Your task to perform on an android device: Go to network settings Image 0: 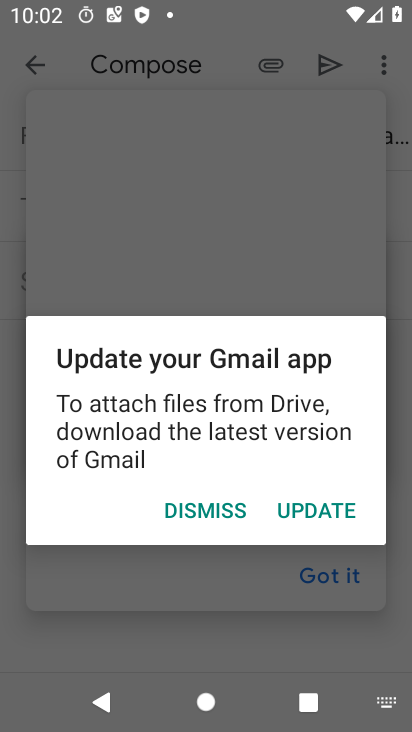
Step 0: press home button
Your task to perform on an android device: Go to network settings Image 1: 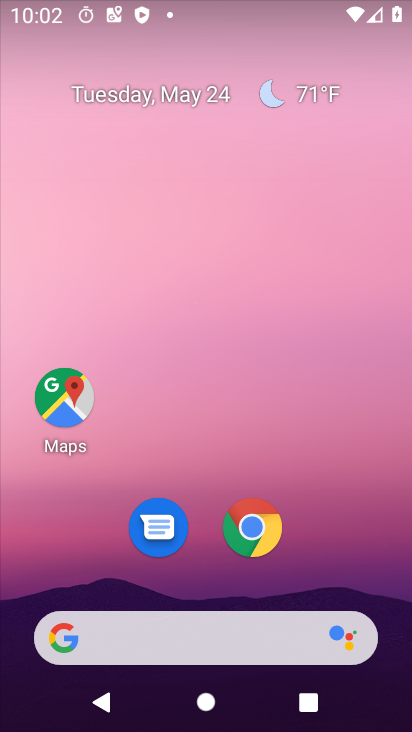
Step 1: drag from (194, 562) to (262, 76)
Your task to perform on an android device: Go to network settings Image 2: 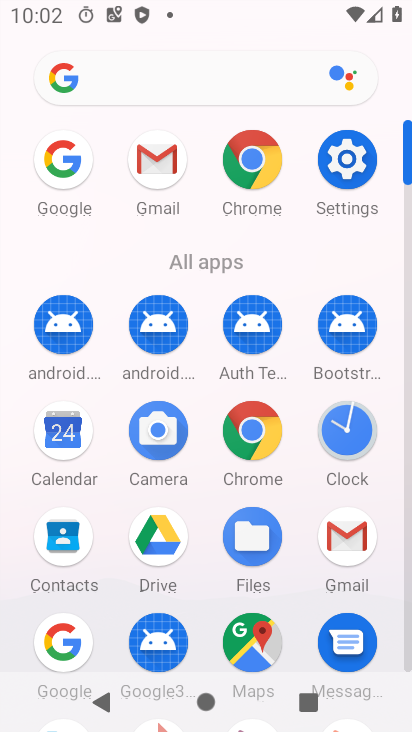
Step 2: click (357, 166)
Your task to perform on an android device: Go to network settings Image 3: 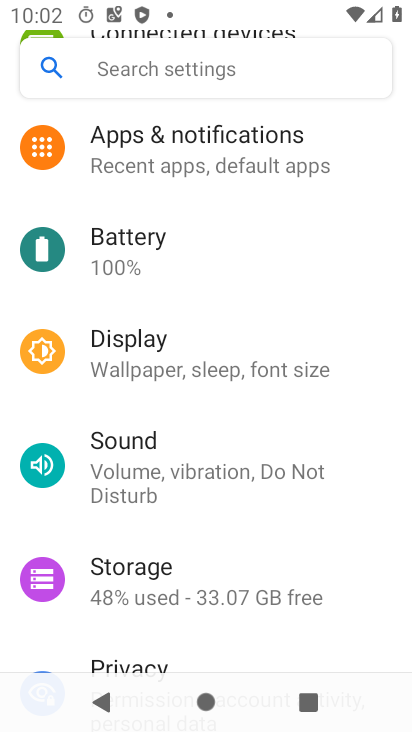
Step 3: drag from (173, 155) to (187, 503)
Your task to perform on an android device: Go to network settings Image 4: 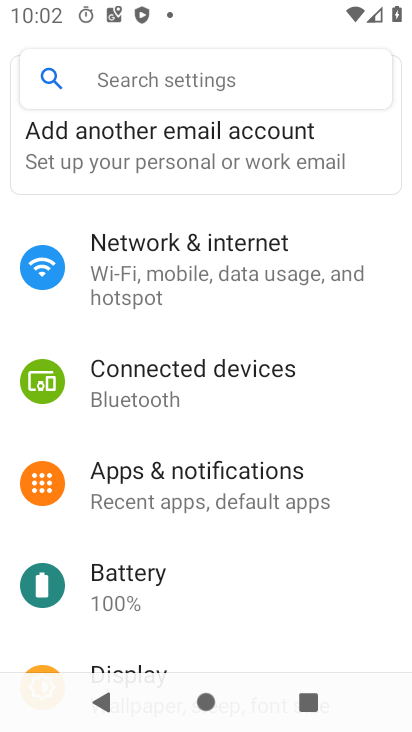
Step 4: click (176, 263)
Your task to perform on an android device: Go to network settings Image 5: 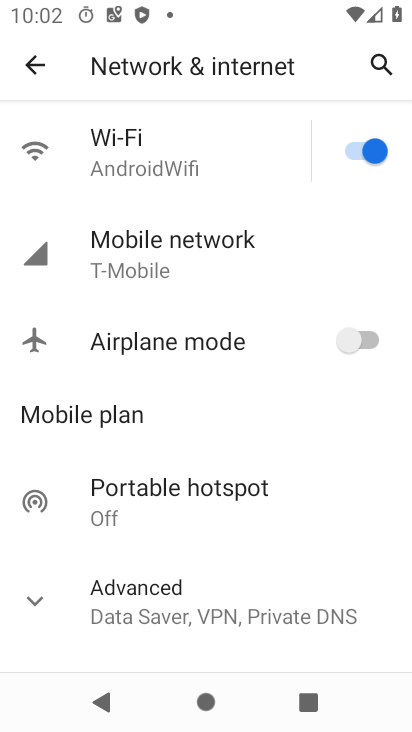
Step 5: click (166, 236)
Your task to perform on an android device: Go to network settings Image 6: 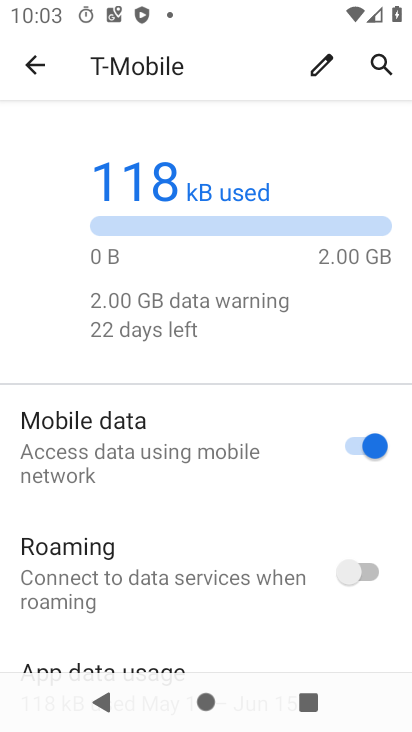
Step 6: task complete